Your task to perform on an android device: change the upload size in google photos Image 0: 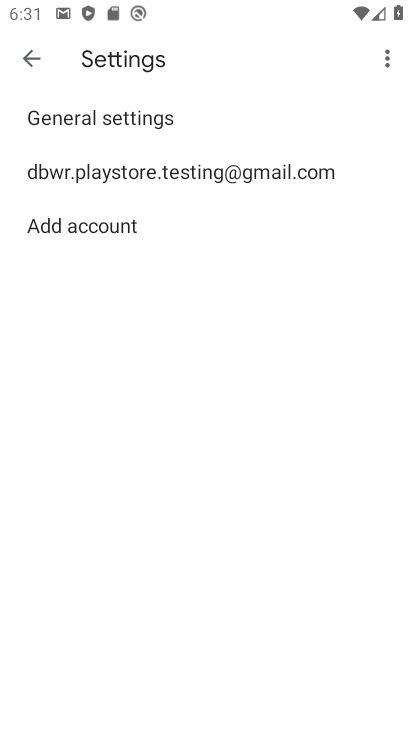
Step 0: press home button
Your task to perform on an android device: change the upload size in google photos Image 1: 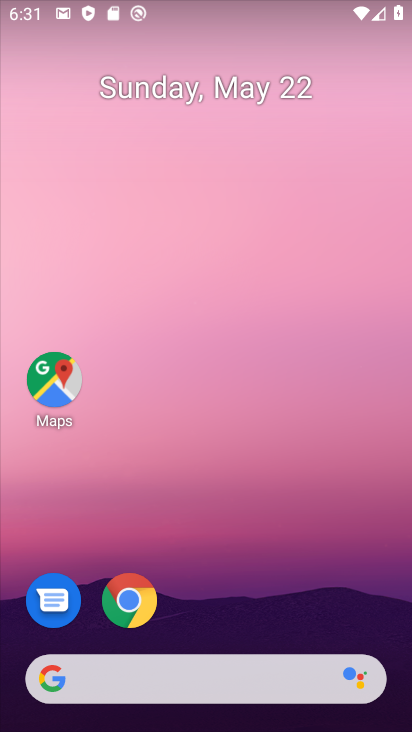
Step 1: drag from (399, 398) to (360, 106)
Your task to perform on an android device: change the upload size in google photos Image 2: 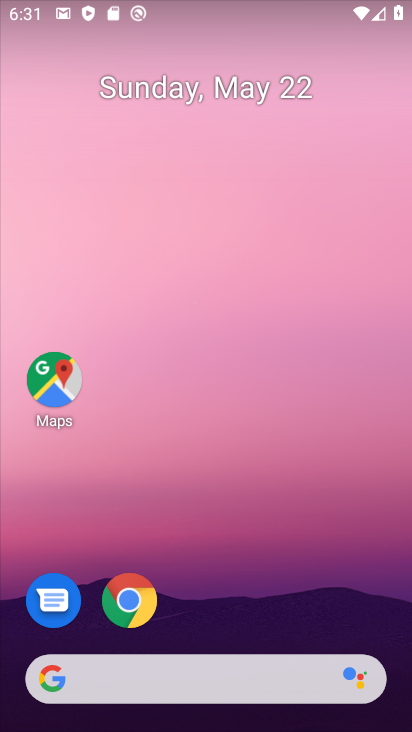
Step 2: drag from (342, 629) to (307, 90)
Your task to perform on an android device: change the upload size in google photos Image 3: 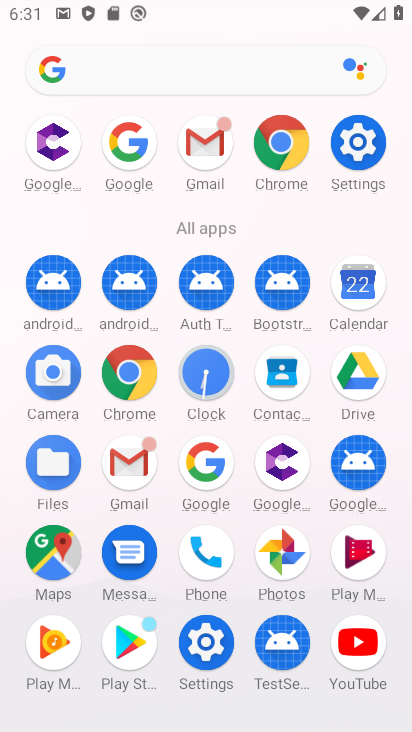
Step 3: click (280, 566)
Your task to perform on an android device: change the upload size in google photos Image 4: 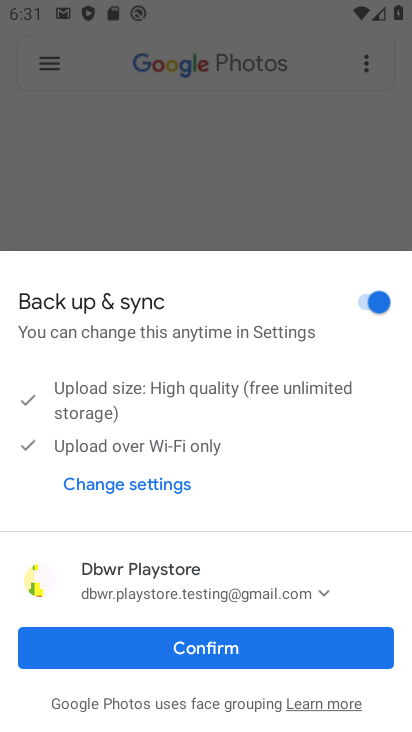
Step 4: click (234, 642)
Your task to perform on an android device: change the upload size in google photos Image 5: 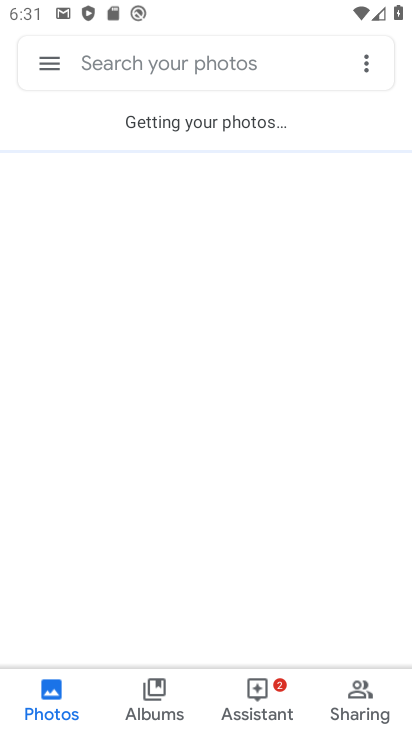
Step 5: click (47, 71)
Your task to perform on an android device: change the upload size in google photos Image 6: 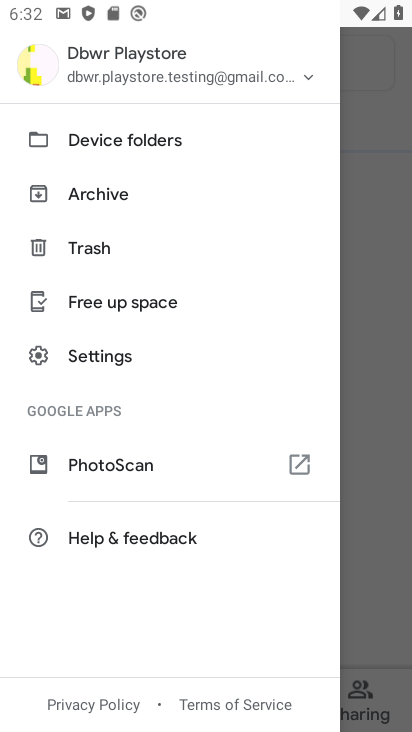
Step 6: click (122, 355)
Your task to perform on an android device: change the upload size in google photos Image 7: 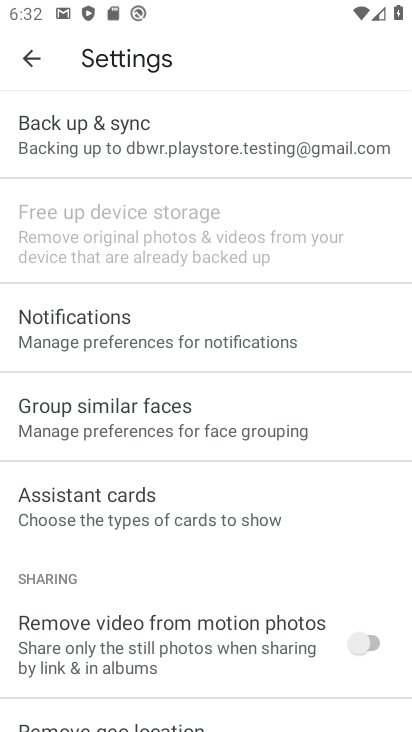
Step 7: click (198, 161)
Your task to perform on an android device: change the upload size in google photos Image 8: 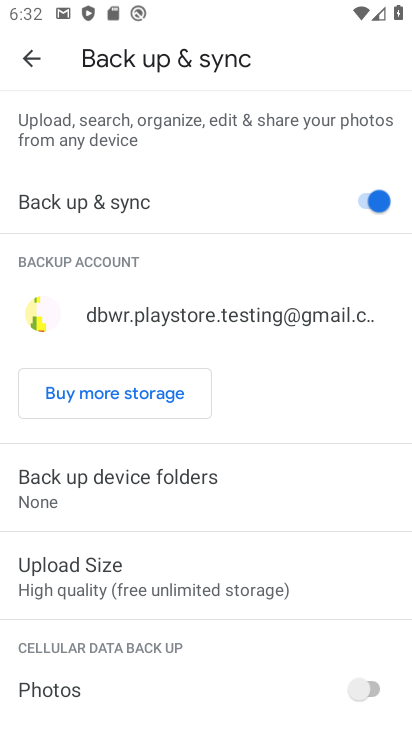
Step 8: click (209, 564)
Your task to perform on an android device: change the upload size in google photos Image 9: 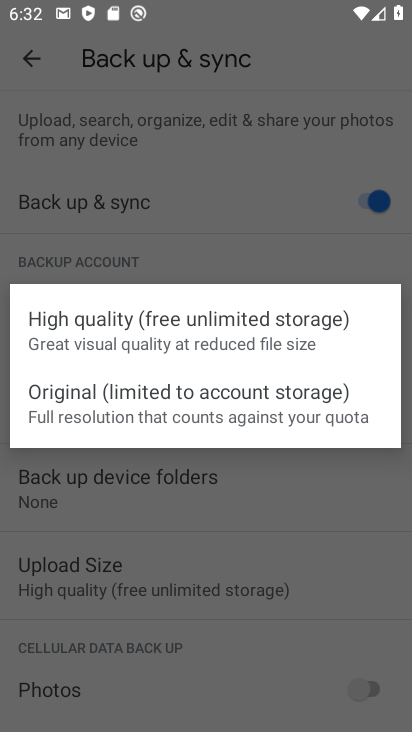
Step 9: click (227, 408)
Your task to perform on an android device: change the upload size in google photos Image 10: 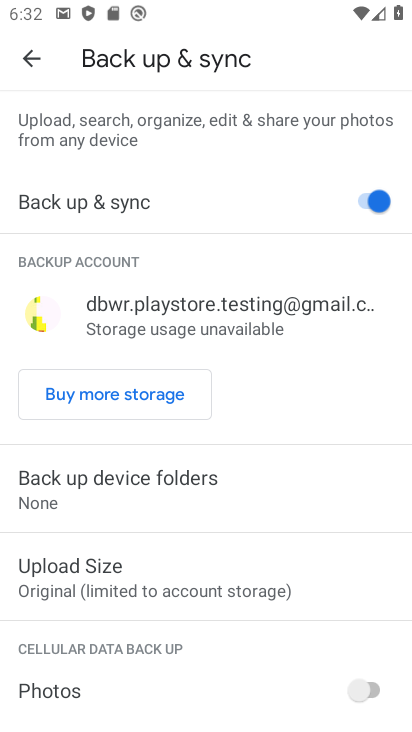
Step 10: task complete